Your task to perform on an android device: change the clock display to digital Image 0: 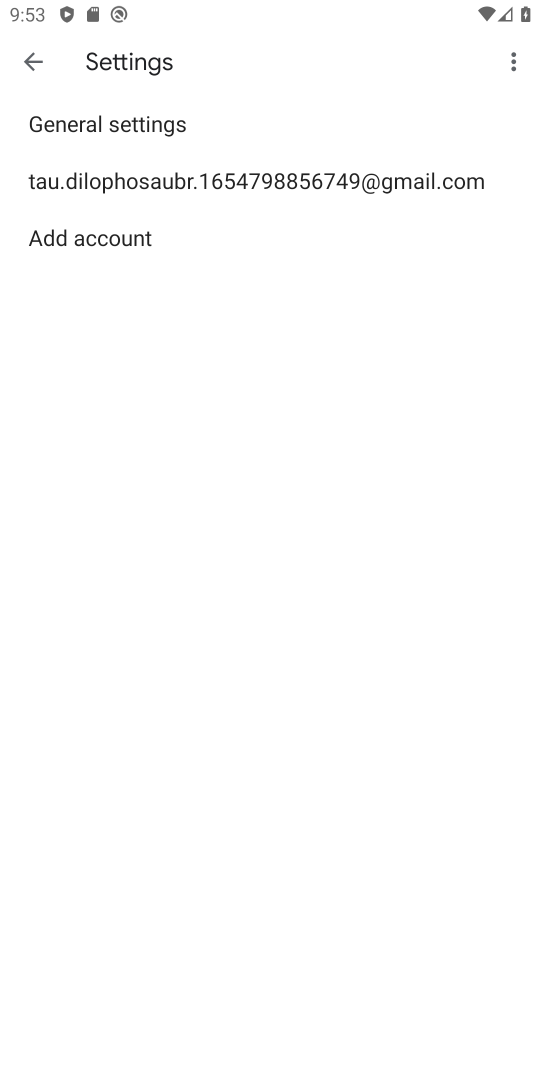
Step 0: press home button
Your task to perform on an android device: change the clock display to digital Image 1: 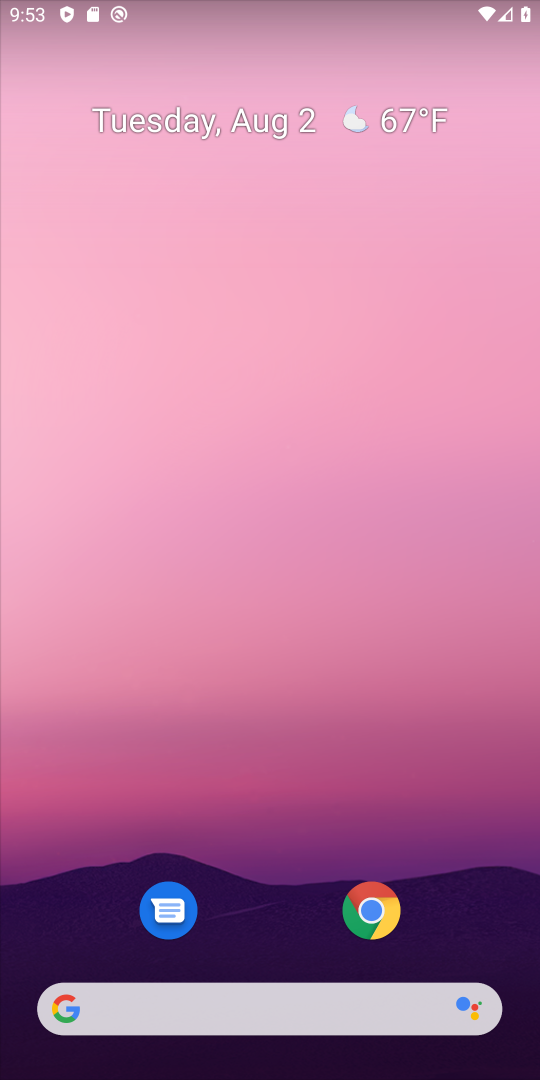
Step 1: drag from (249, 982) to (286, 398)
Your task to perform on an android device: change the clock display to digital Image 2: 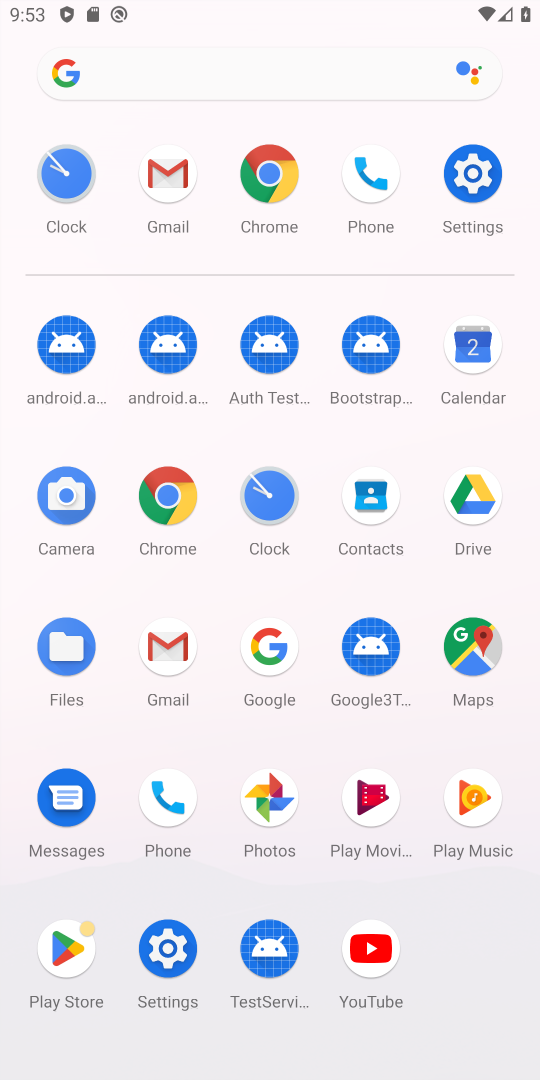
Step 2: click (274, 492)
Your task to perform on an android device: change the clock display to digital Image 3: 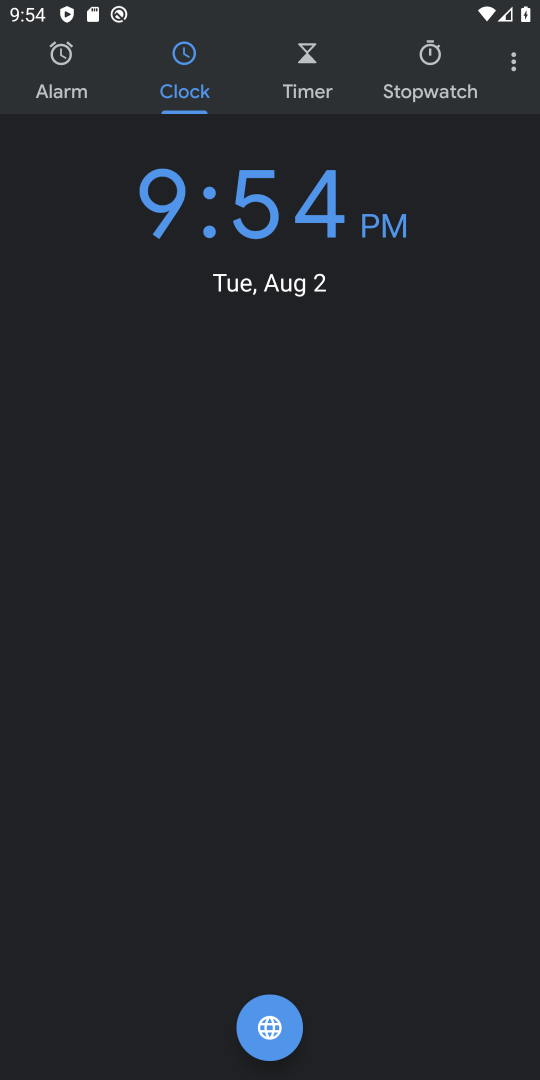
Step 3: click (528, 49)
Your task to perform on an android device: change the clock display to digital Image 4: 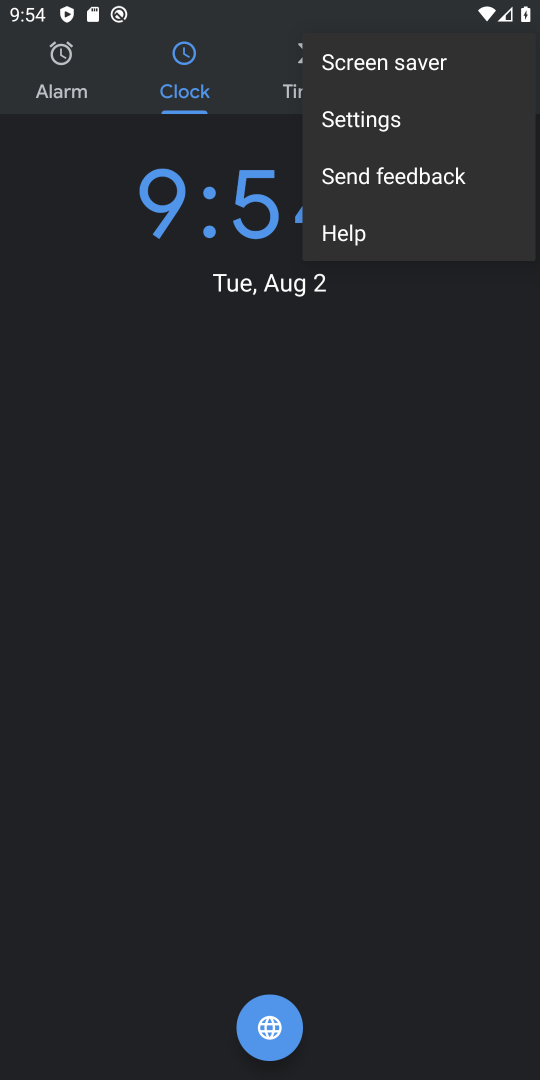
Step 4: click (400, 122)
Your task to perform on an android device: change the clock display to digital Image 5: 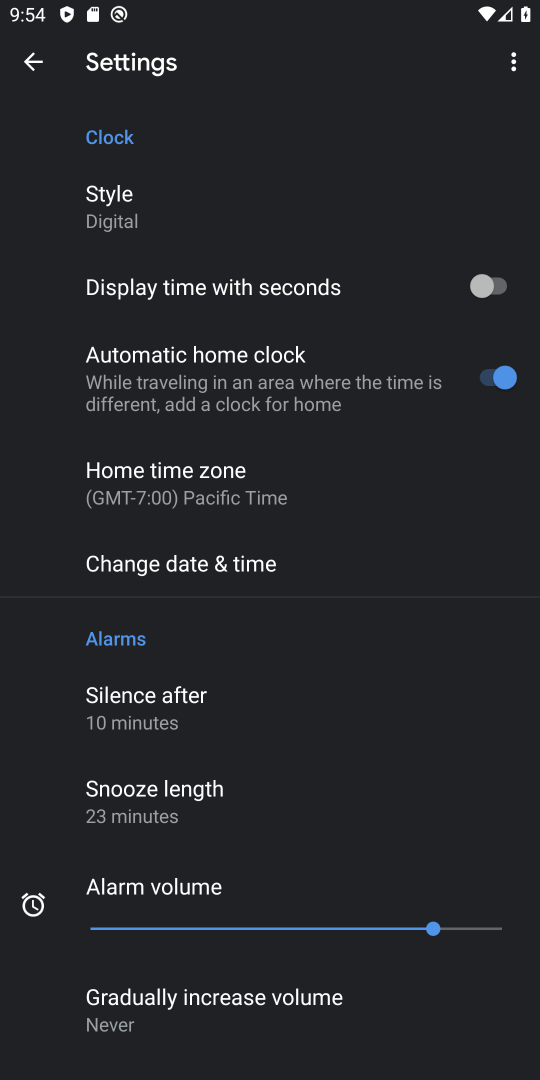
Step 5: click (134, 221)
Your task to perform on an android device: change the clock display to digital Image 6: 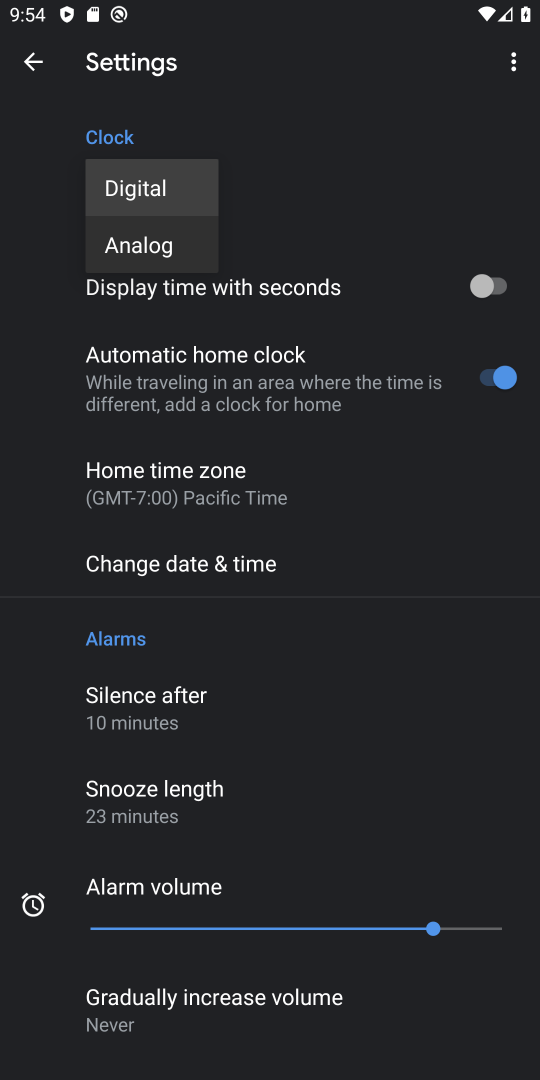
Step 6: click (152, 184)
Your task to perform on an android device: change the clock display to digital Image 7: 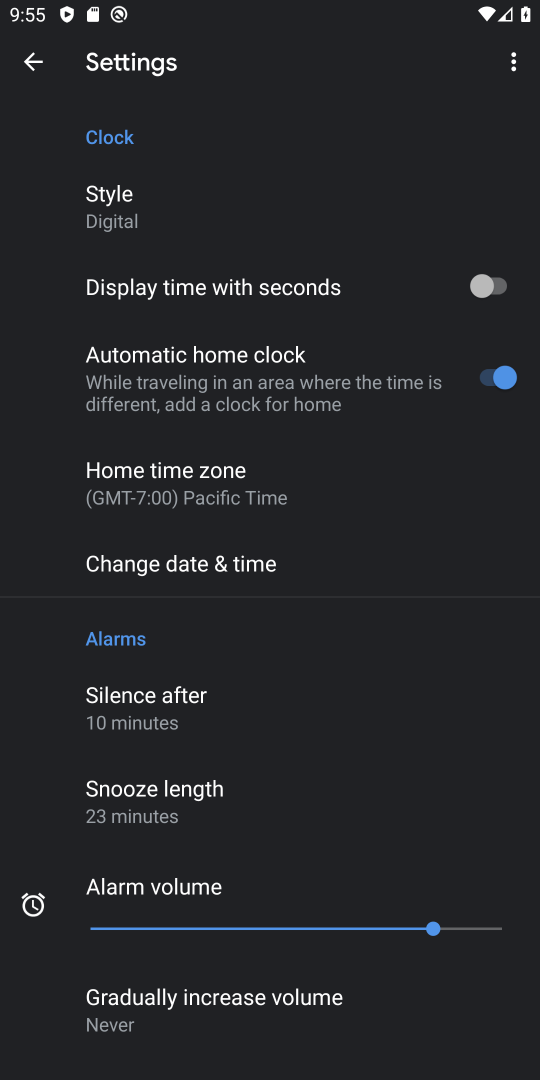
Step 7: task complete